Your task to perform on an android device: install app "DoorDash - Dasher" Image 0: 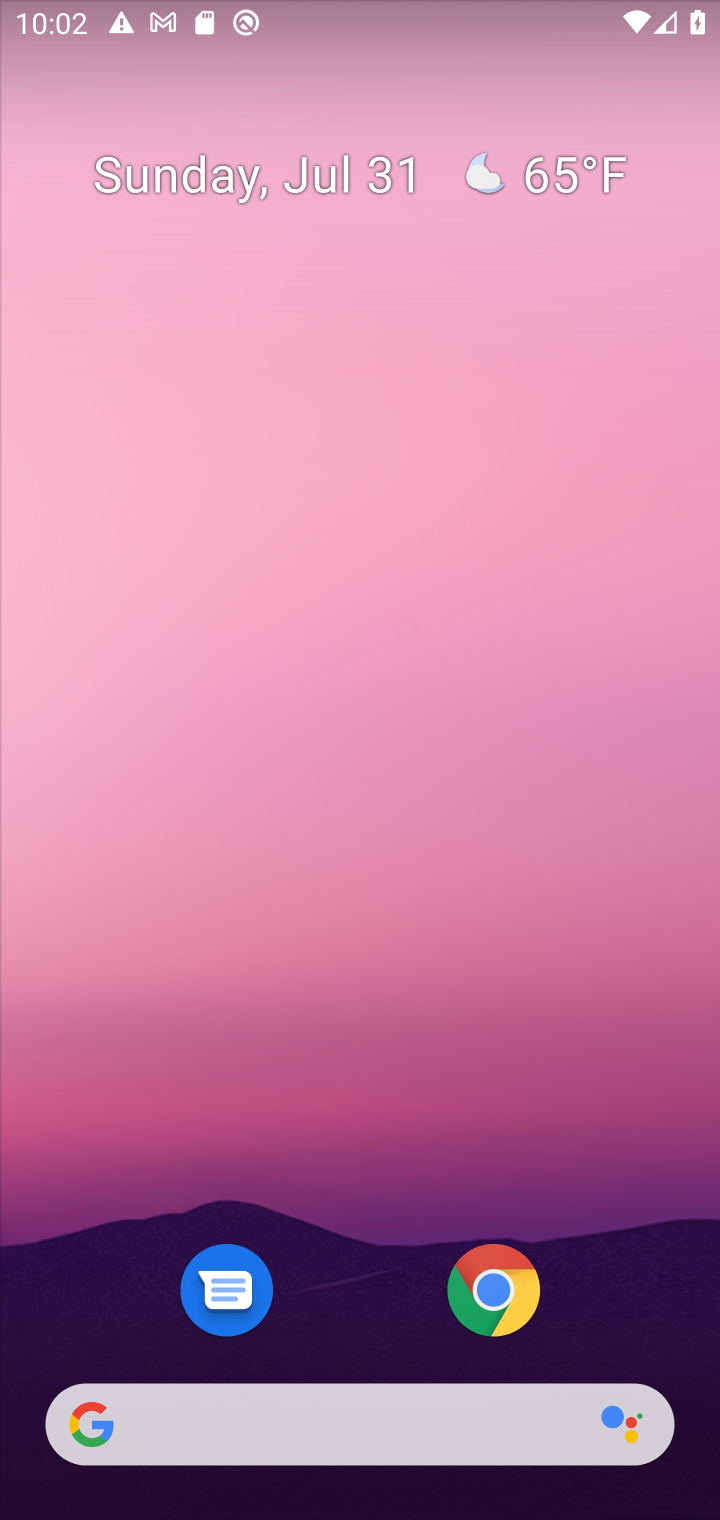
Step 0: press home button
Your task to perform on an android device: install app "DoorDash - Dasher" Image 1: 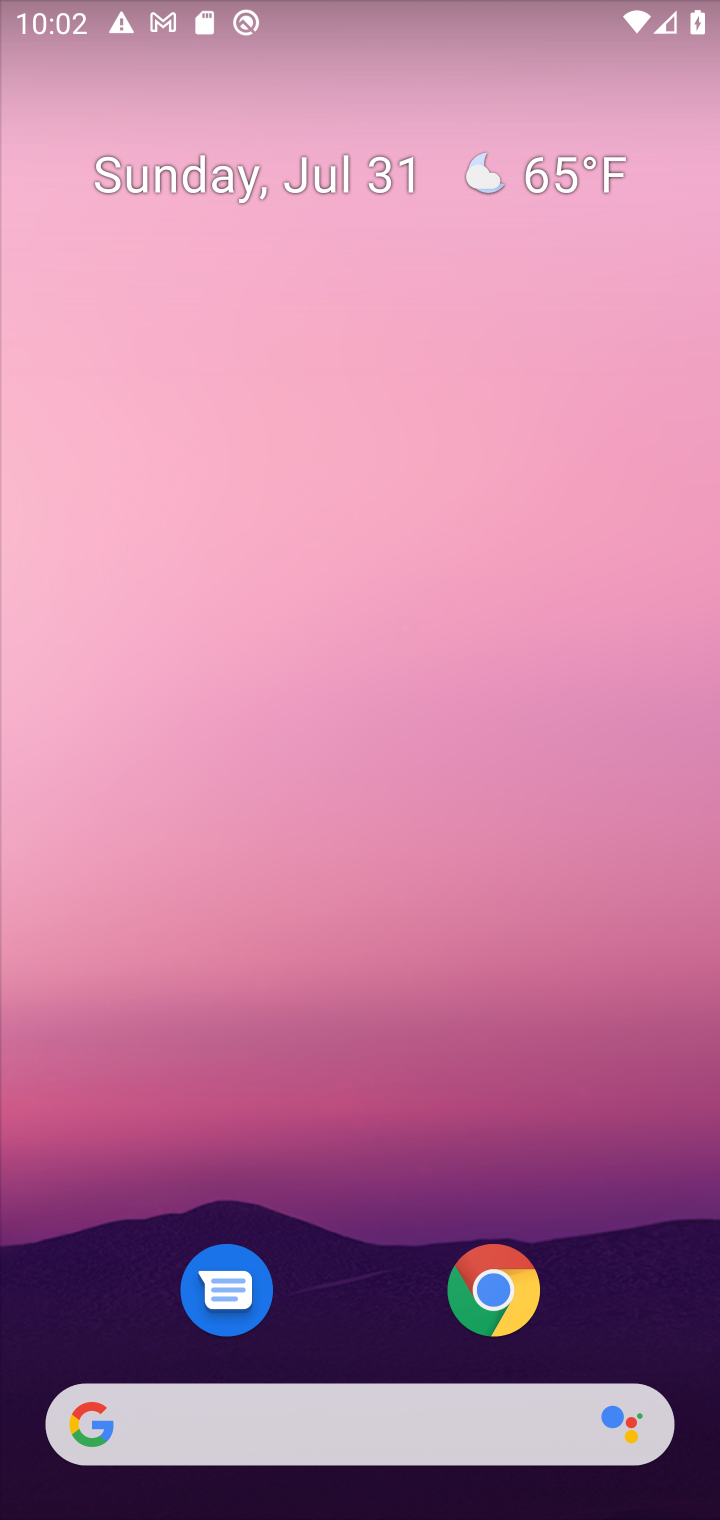
Step 1: drag from (613, 1186) to (615, 130)
Your task to perform on an android device: install app "DoorDash - Dasher" Image 2: 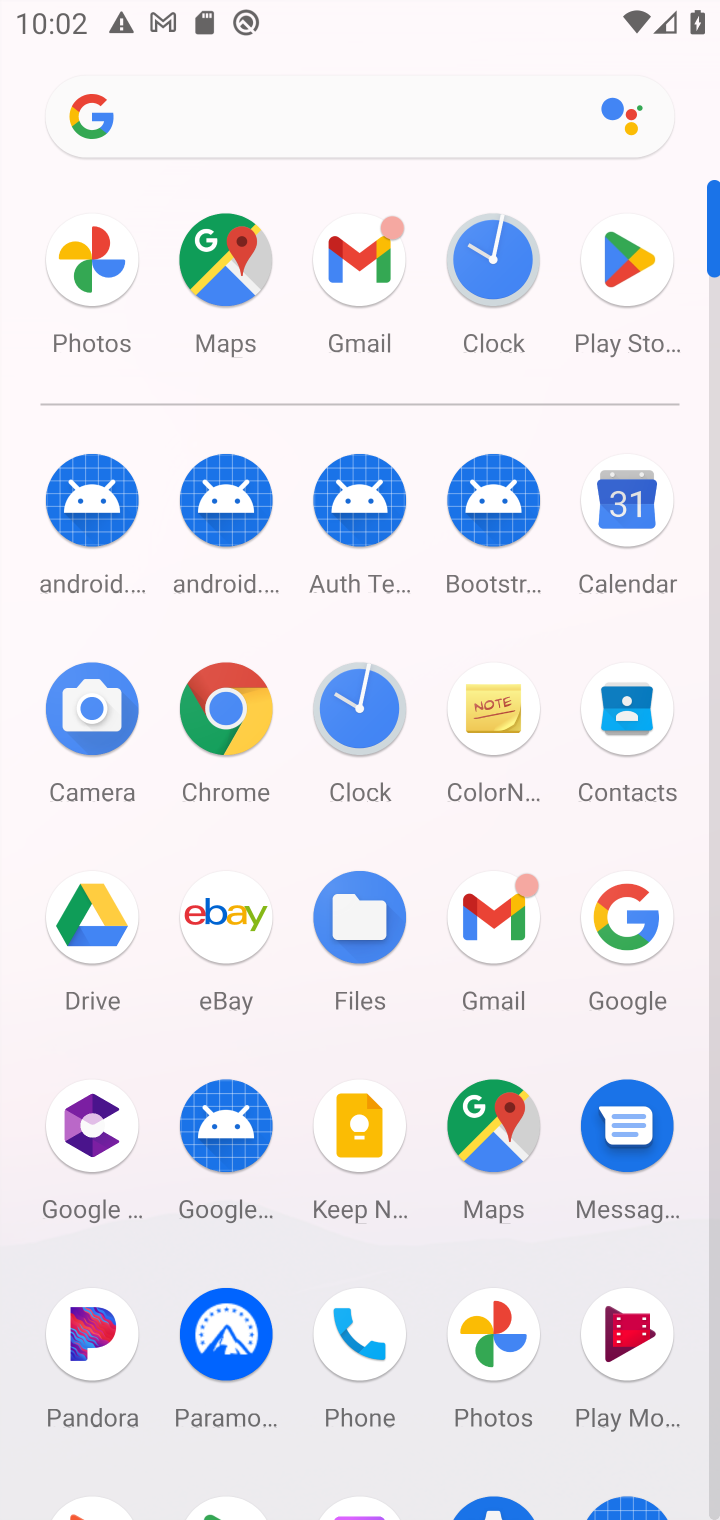
Step 2: click (616, 267)
Your task to perform on an android device: install app "DoorDash - Dasher" Image 3: 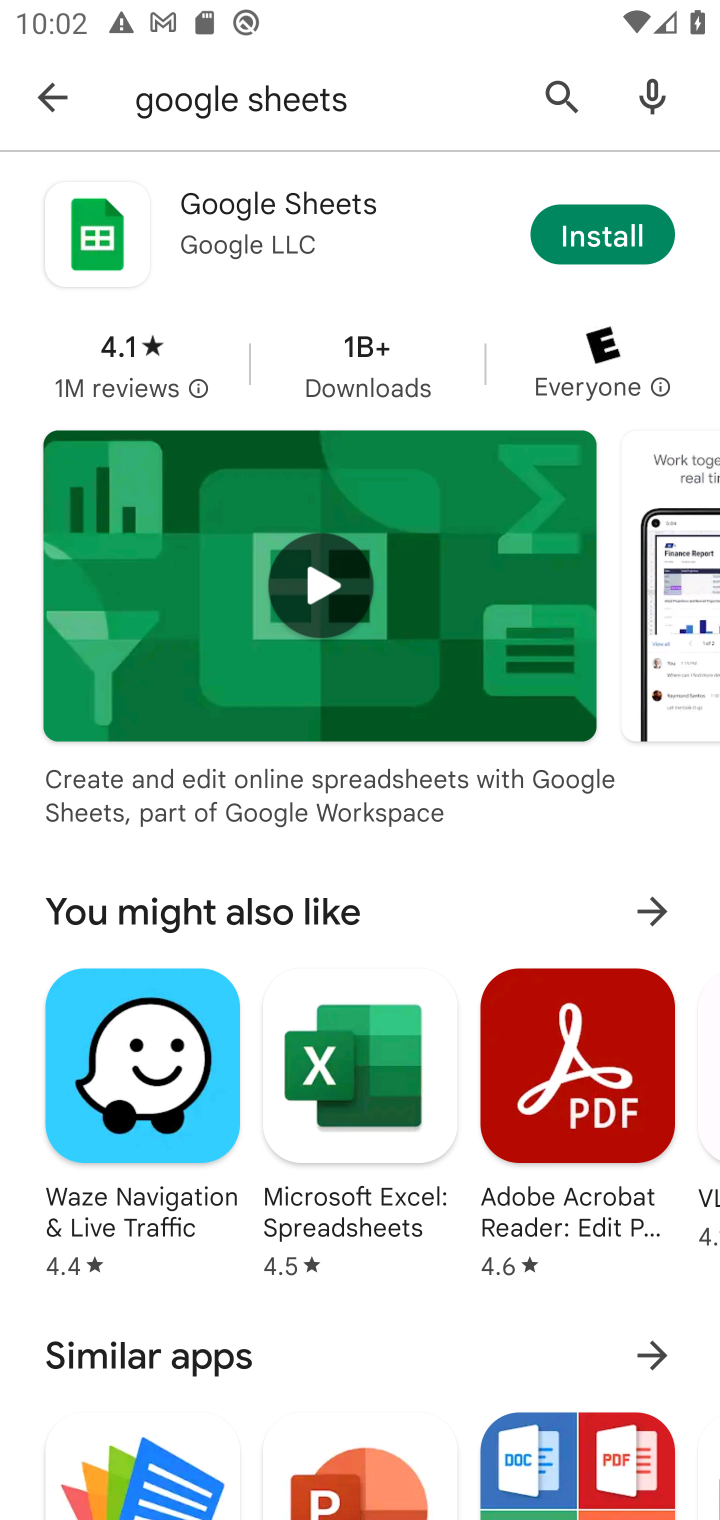
Step 3: click (552, 90)
Your task to perform on an android device: install app "DoorDash - Dasher" Image 4: 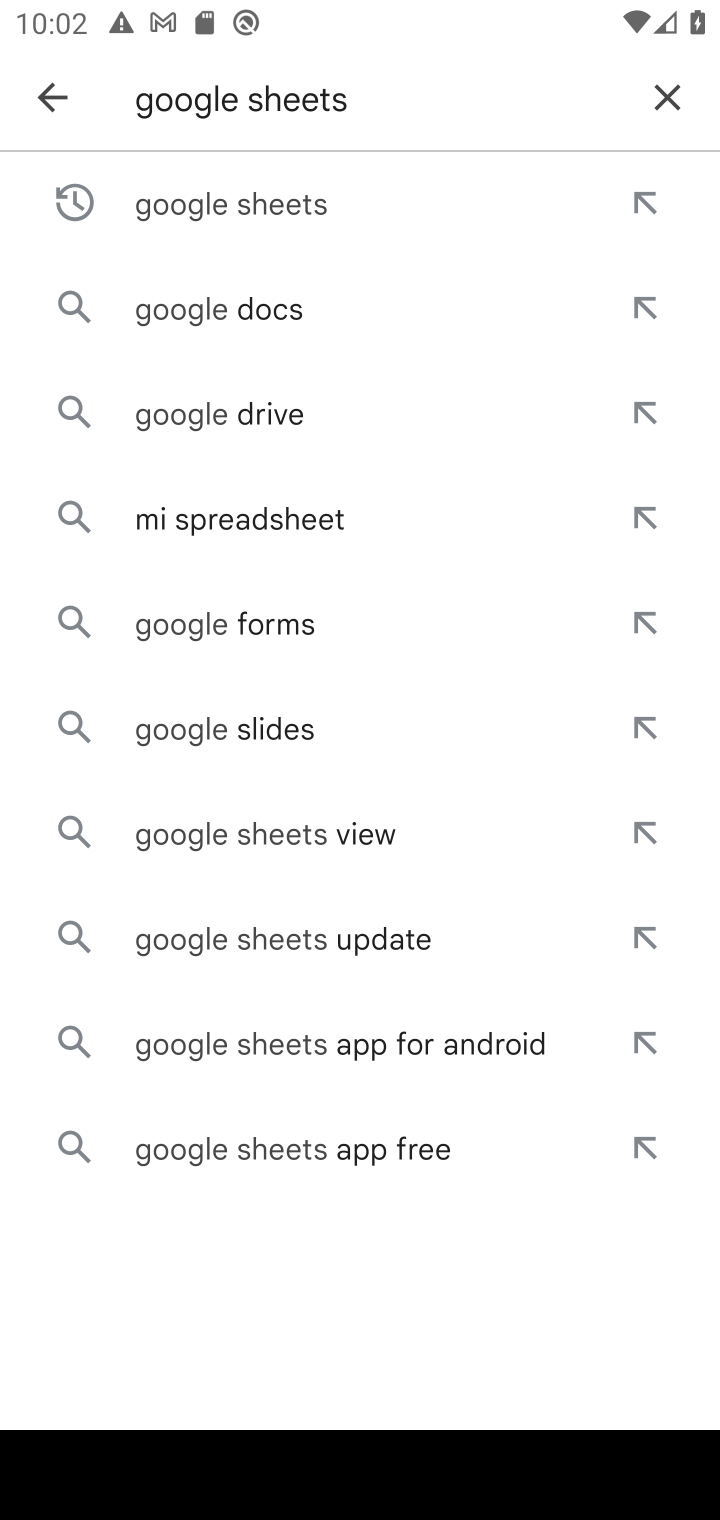
Step 4: click (671, 100)
Your task to perform on an android device: install app "DoorDash - Dasher" Image 5: 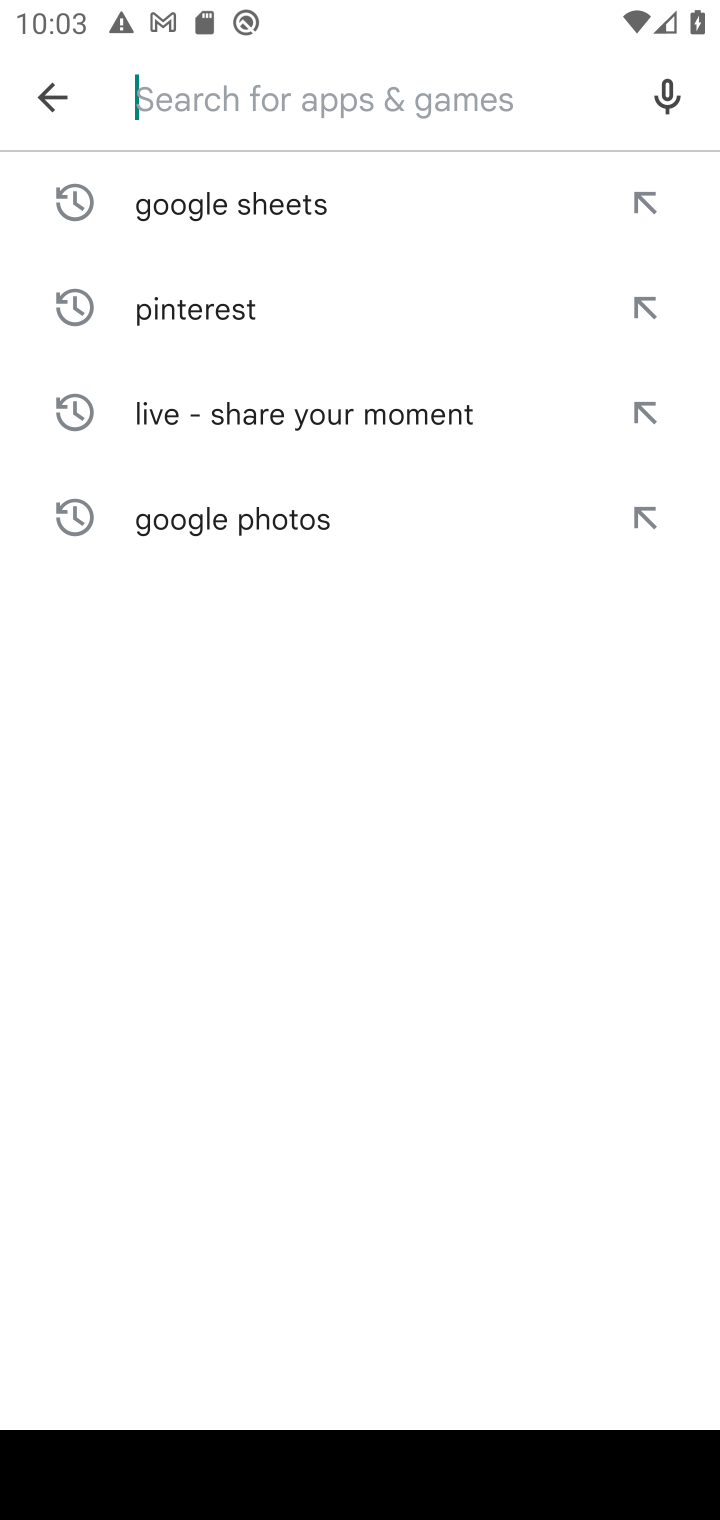
Step 5: type "doordash dasher"
Your task to perform on an android device: install app "DoorDash - Dasher" Image 6: 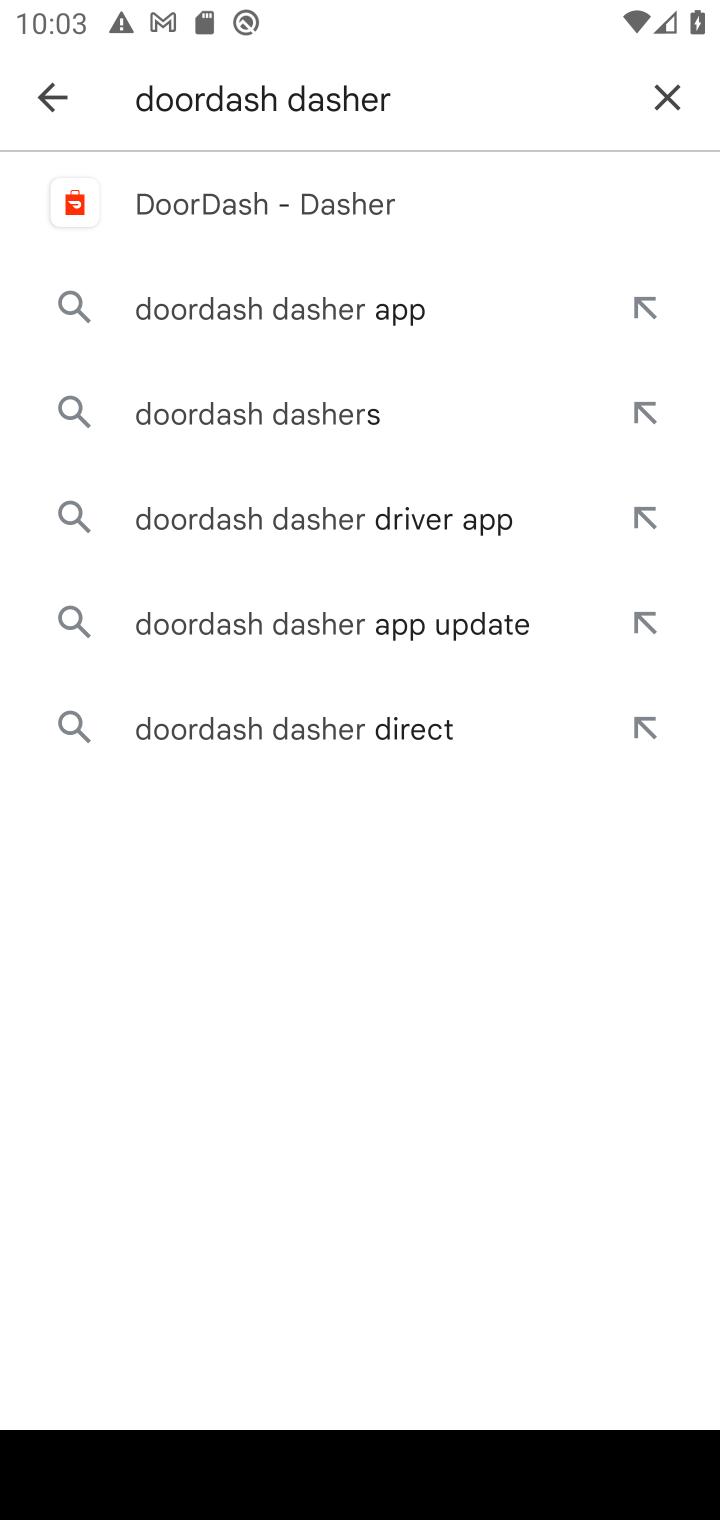
Step 6: click (380, 207)
Your task to perform on an android device: install app "DoorDash - Dasher" Image 7: 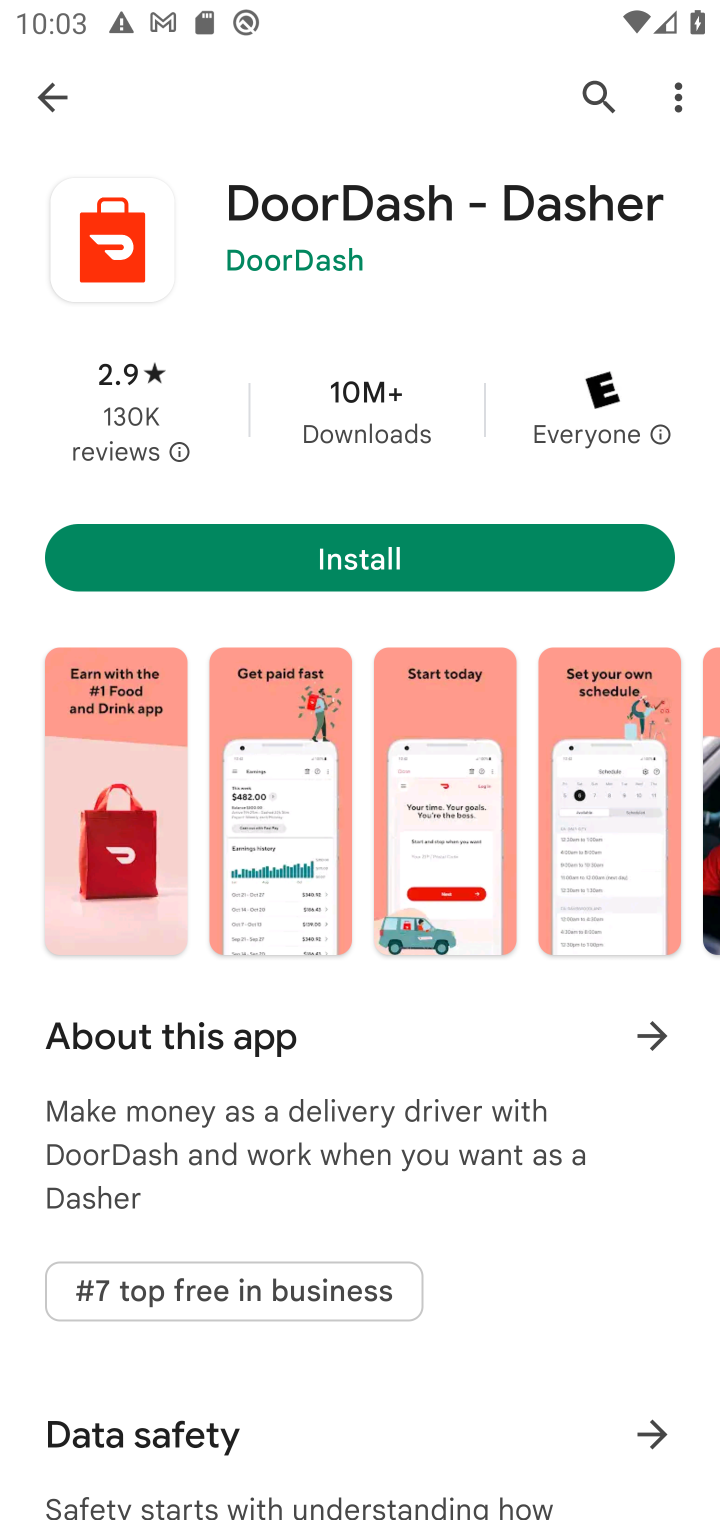
Step 7: click (550, 552)
Your task to perform on an android device: install app "DoorDash - Dasher" Image 8: 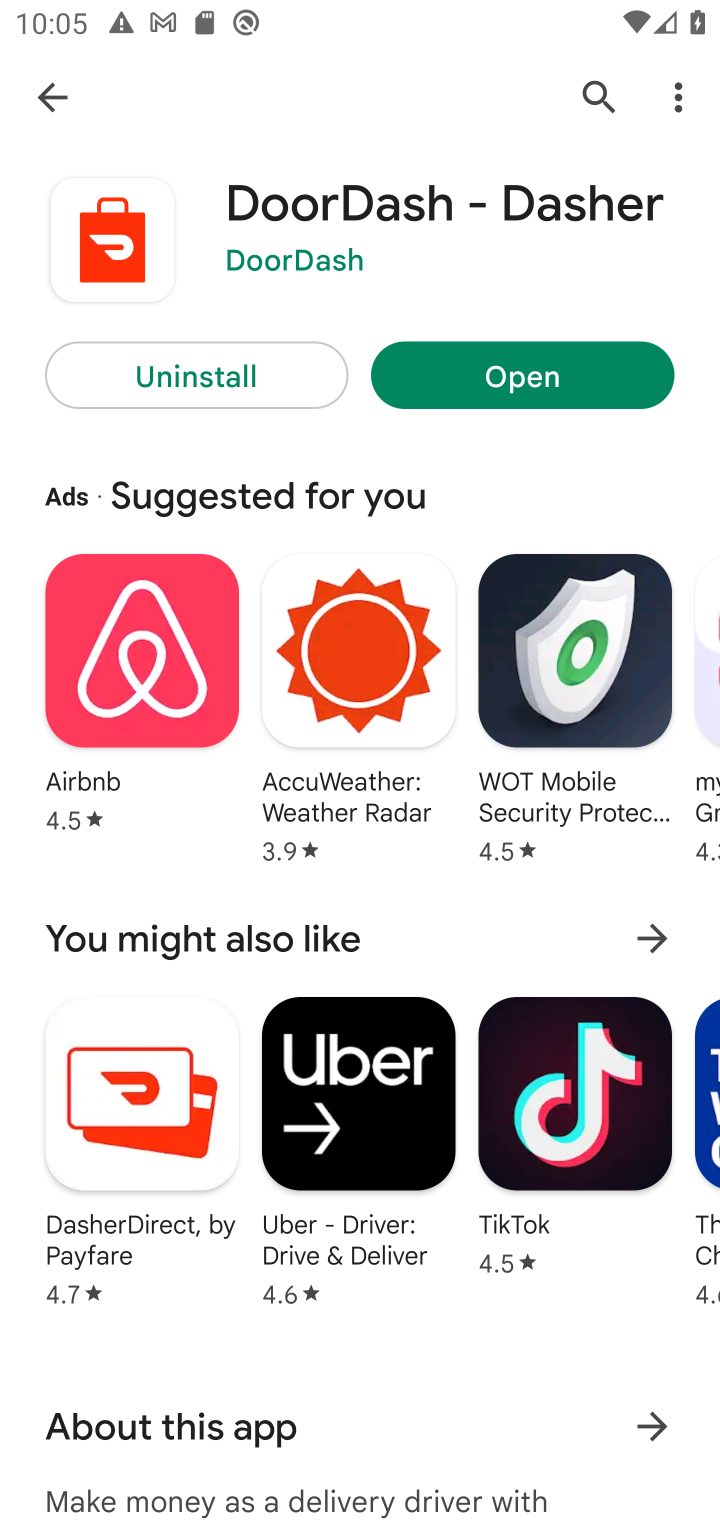
Step 8: task complete